Your task to perform on an android device: turn on sleep mode Image 0: 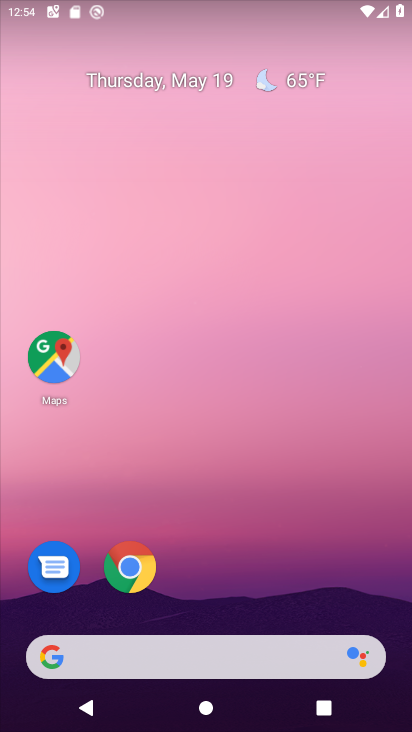
Step 0: drag from (263, 565) to (290, 90)
Your task to perform on an android device: turn on sleep mode Image 1: 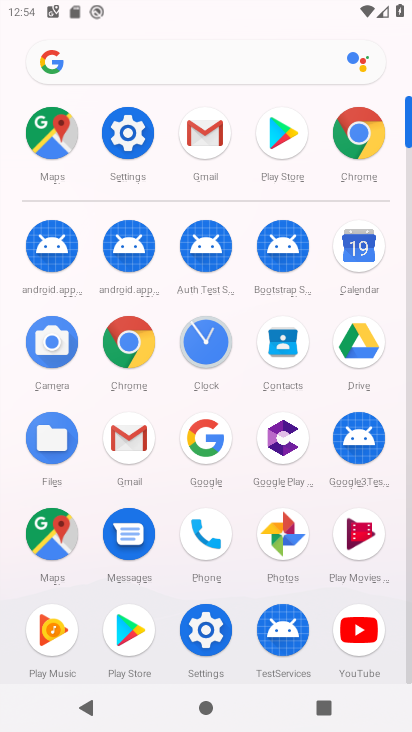
Step 1: click (126, 133)
Your task to perform on an android device: turn on sleep mode Image 2: 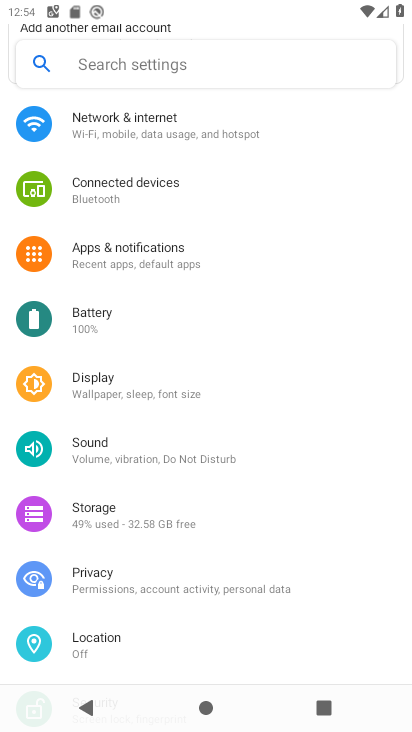
Step 2: click (191, 390)
Your task to perform on an android device: turn on sleep mode Image 3: 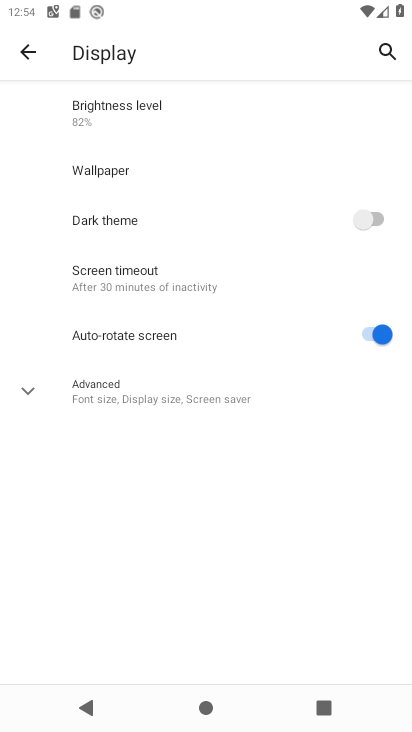
Step 3: click (178, 396)
Your task to perform on an android device: turn on sleep mode Image 4: 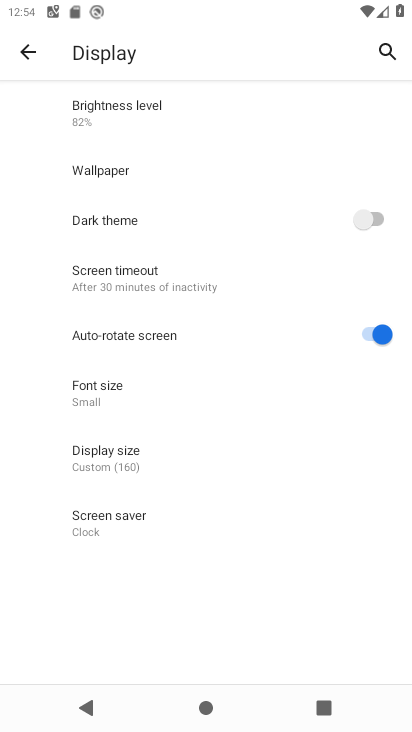
Step 4: task complete